Your task to perform on an android device: Go to eBay Image 0: 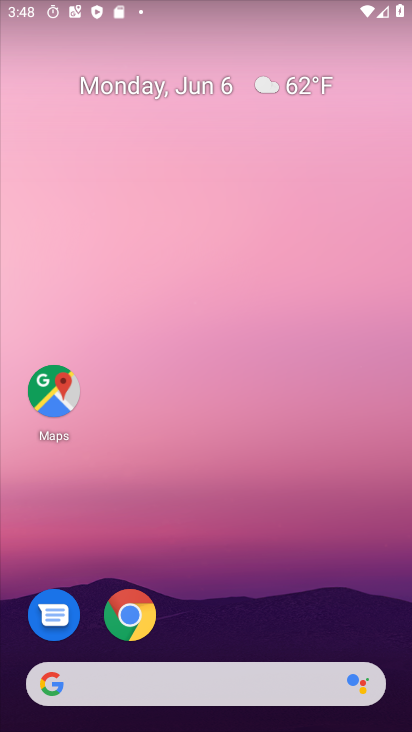
Step 0: drag from (359, 679) to (369, 77)
Your task to perform on an android device: Go to eBay Image 1: 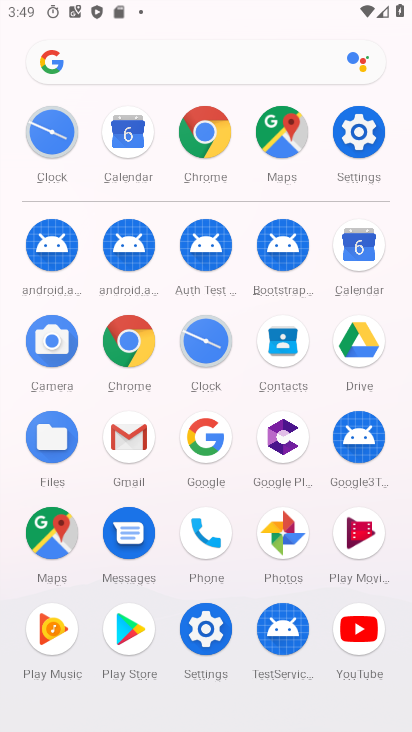
Step 1: click (131, 362)
Your task to perform on an android device: Go to eBay Image 2: 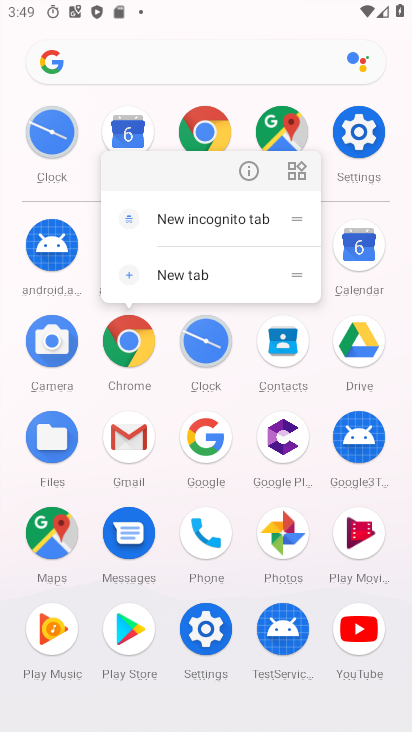
Step 2: click (134, 331)
Your task to perform on an android device: Go to eBay Image 3: 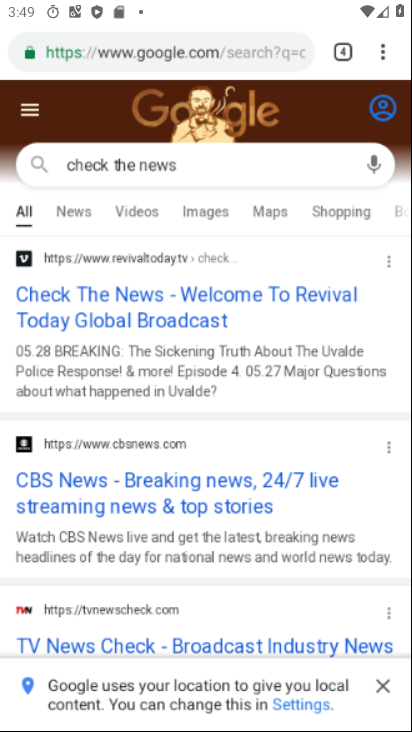
Step 3: click (176, 50)
Your task to perform on an android device: Go to eBay Image 4: 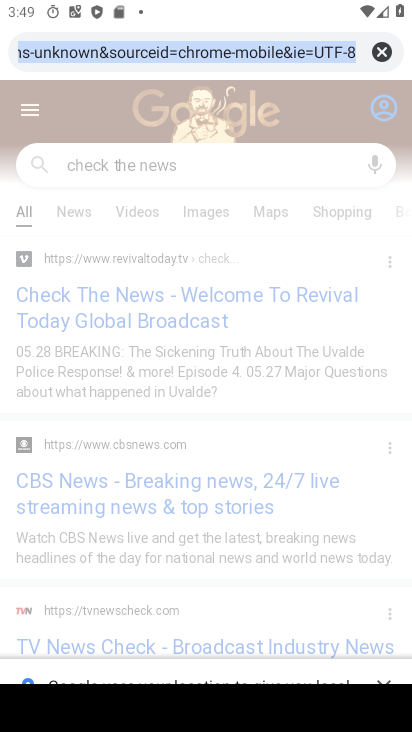
Step 4: type "ebbay"
Your task to perform on an android device: Go to eBay Image 5: 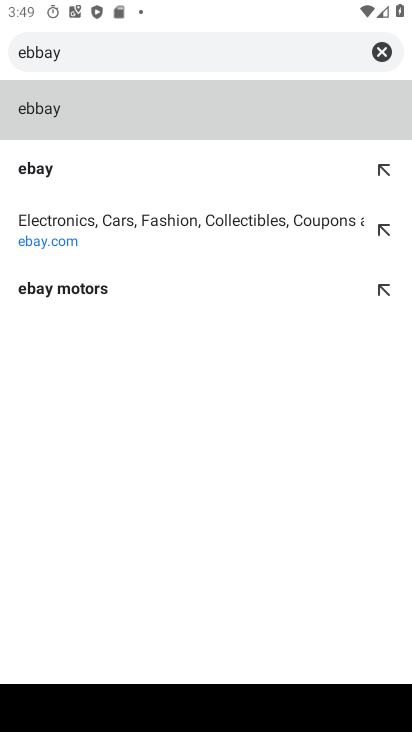
Step 5: click (89, 216)
Your task to perform on an android device: Go to eBay Image 6: 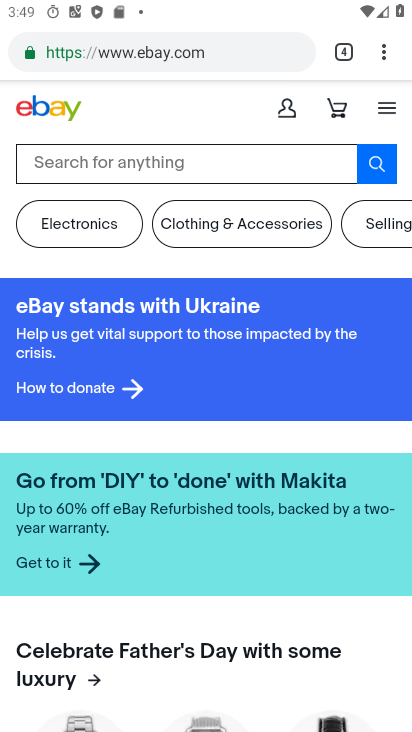
Step 6: task complete